Your task to perform on an android device: Search for Italian restaurants on Maps Image 0: 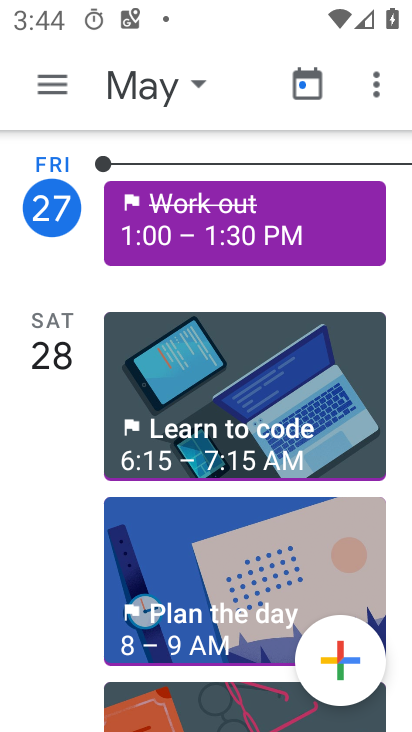
Step 0: press home button
Your task to perform on an android device: Search for Italian restaurants on Maps Image 1: 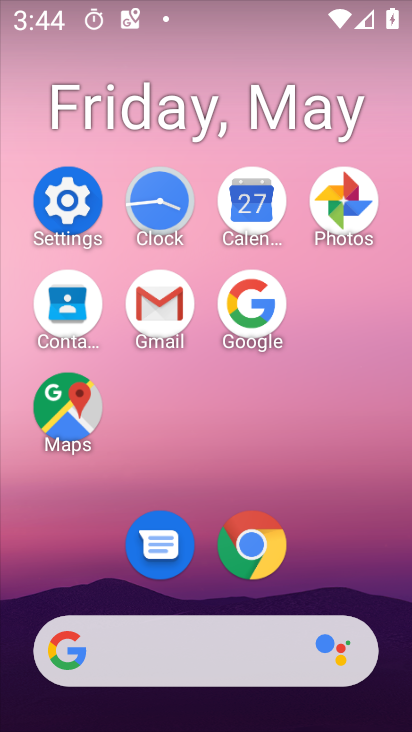
Step 1: click (81, 419)
Your task to perform on an android device: Search for Italian restaurants on Maps Image 2: 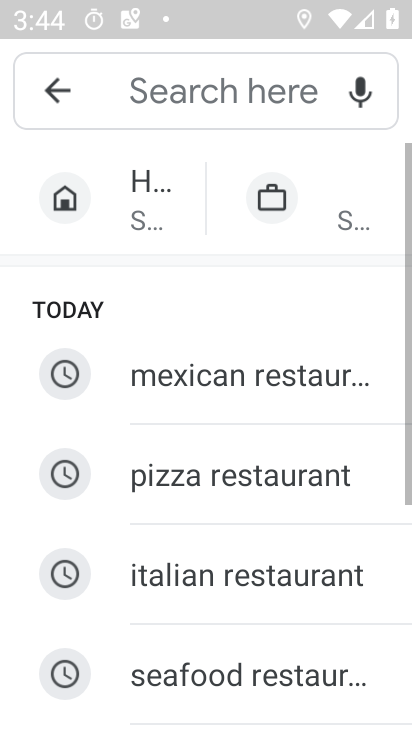
Step 2: click (263, 104)
Your task to perform on an android device: Search for Italian restaurants on Maps Image 3: 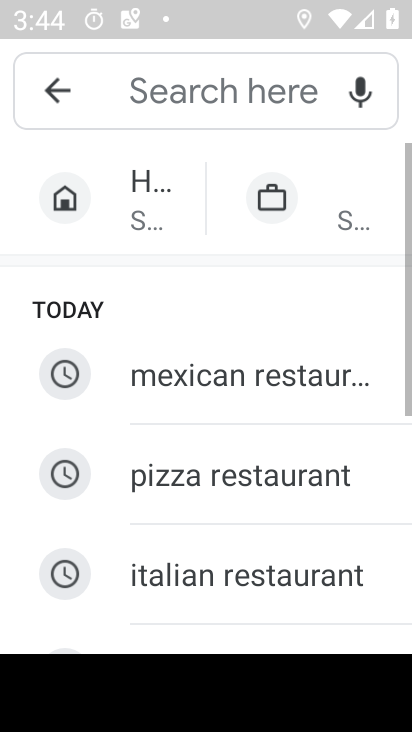
Step 3: click (260, 600)
Your task to perform on an android device: Search for Italian restaurants on Maps Image 4: 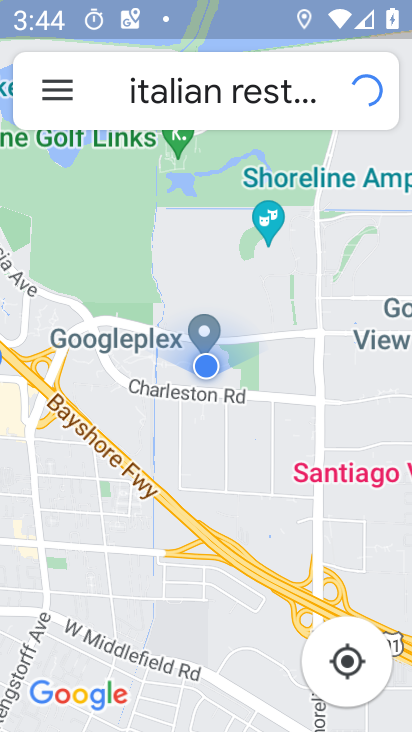
Step 4: task complete